Your task to perform on an android device: find photos in the google photos app Image 0: 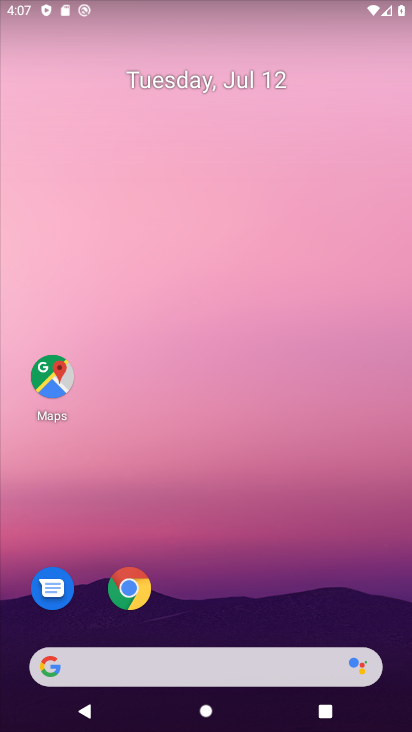
Step 0: click (214, 230)
Your task to perform on an android device: find photos in the google photos app Image 1: 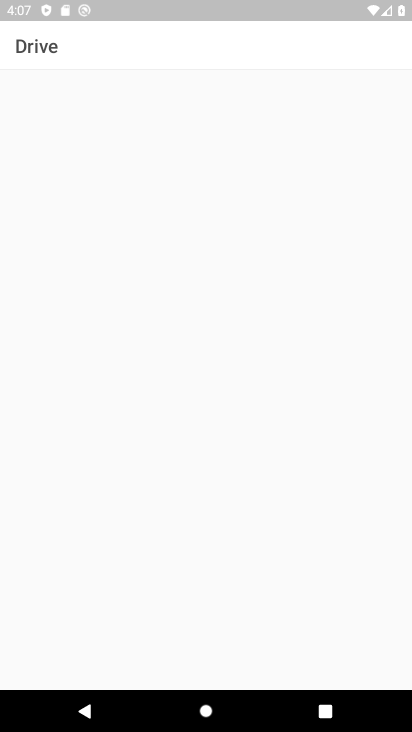
Step 1: press home button
Your task to perform on an android device: find photos in the google photos app Image 2: 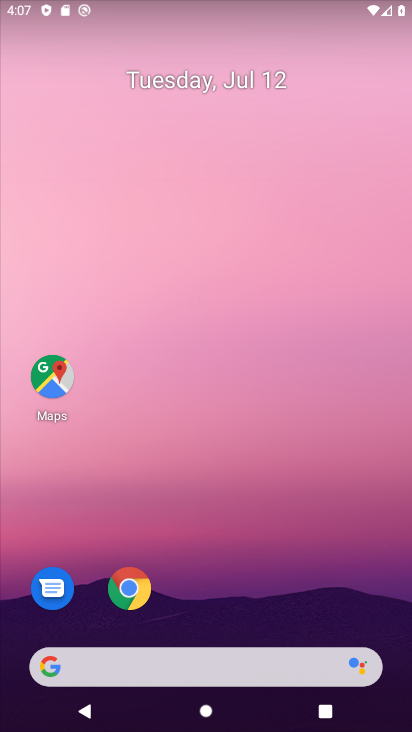
Step 2: drag from (217, 632) to (213, 170)
Your task to perform on an android device: find photos in the google photos app Image 3: 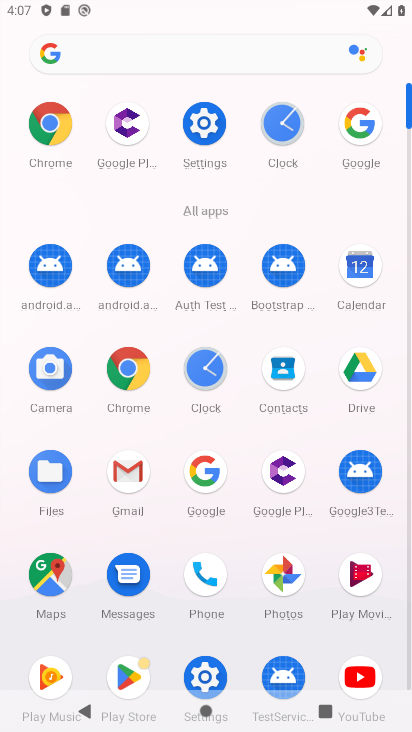
Step 3: click (275, 567)
Your task to perform on an android device: find photos in the google photos app Image 4: 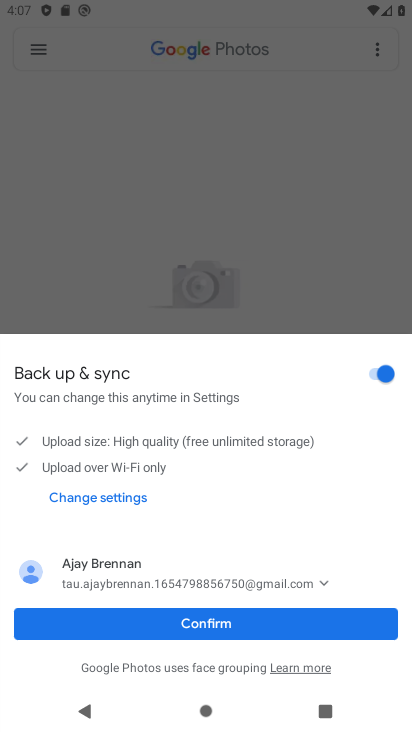
Step 4: click (179, 632)
Your task to perform on an android device: find photos in the google photos app Image 5: 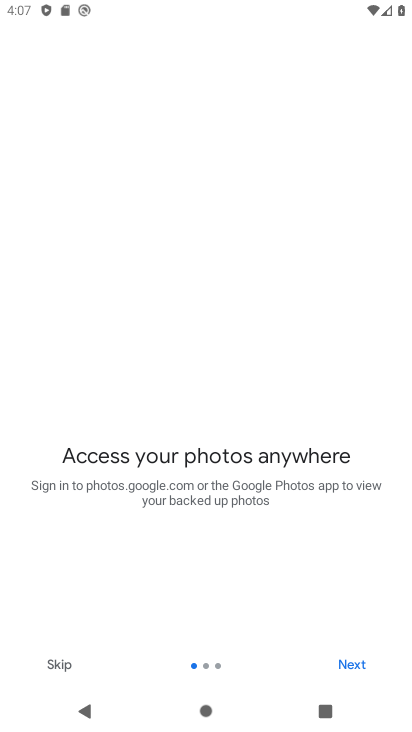
Step 5: click (334, 648)
Your task to perform on an android device: find photos in the google photos app Image 6: 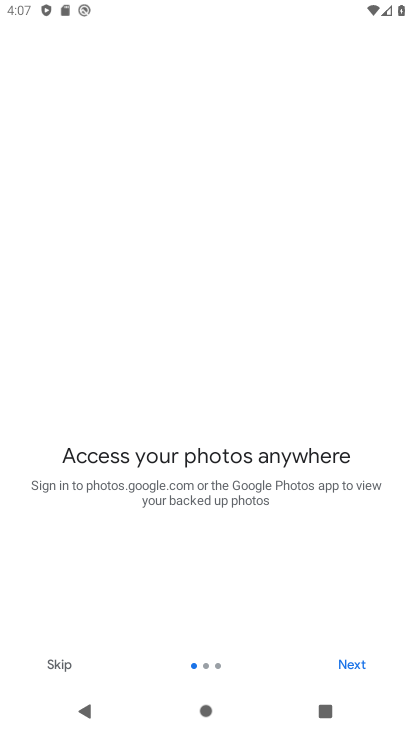
Step 6: click (336, 649)
Your task to perform on an android device: find photos in the google photos app Image 7: 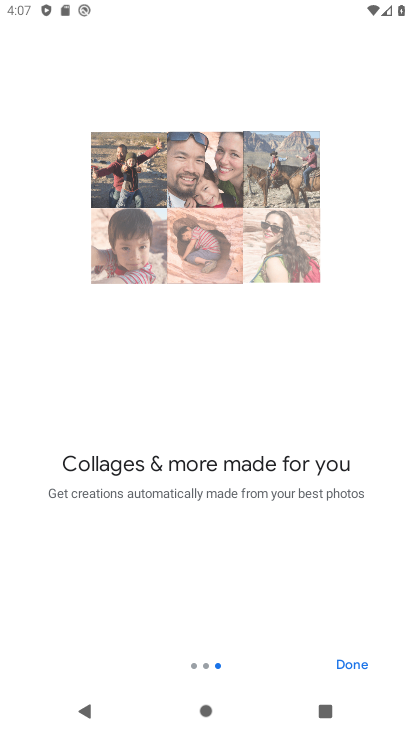
Step 7: click (347, 659)
Your task to perform on an android device: find photos in the google photos app Image 8: 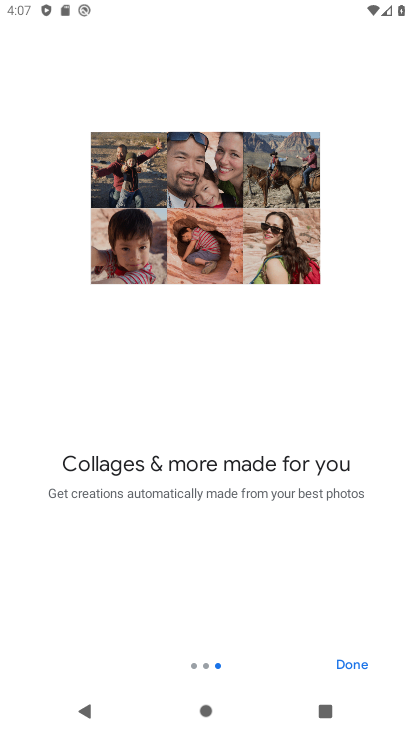
Step 8: click (343, 660)
Your task to perform on an android device: find photos in the google photos app Image 9: 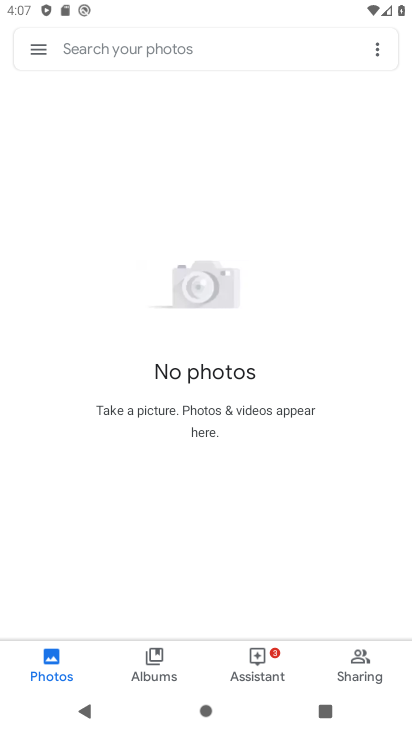
Step 9: click (341, 660)
Your task to perform on an android device: find photos in the google photos app Image 10: 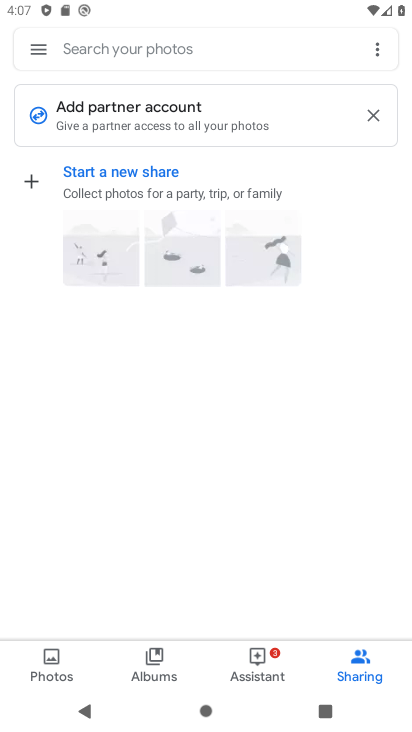
Step 10: click (131, 58)
Your task to perform on an android device: find photos in the google photos app Image 11: 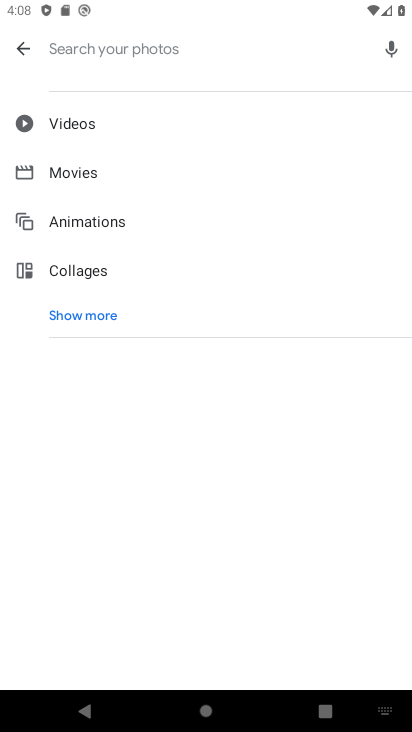
Step 11: type "aa"
Your task to perform on an android device: find photos in the google photos app Image 12: 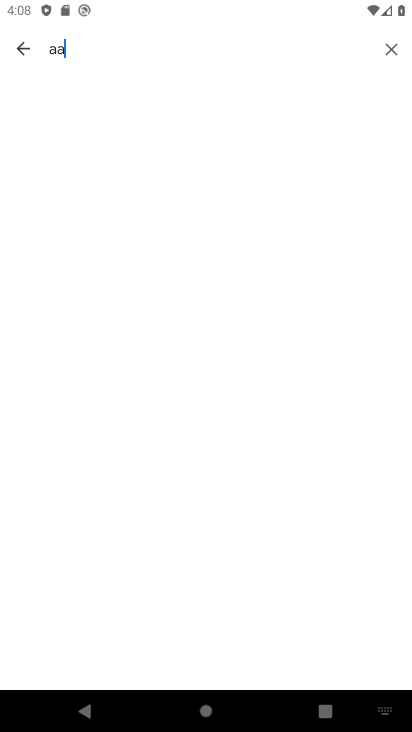
Step 12: task complete